Your task to perform on an android device: Show me productivity apps on the Play Store Image 0: 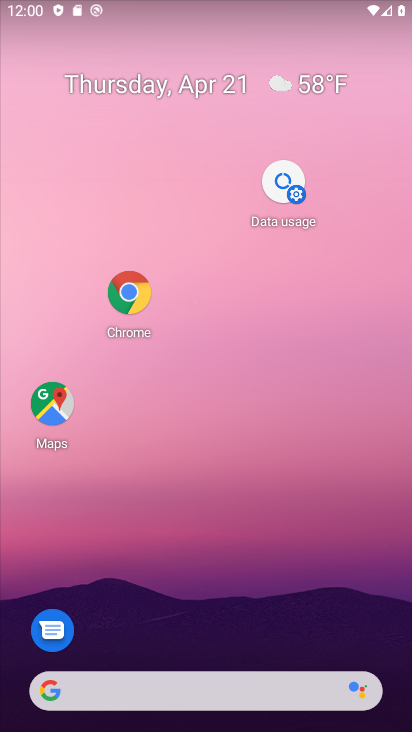
Step 0: drag from (147, 668) to (137, 393)
Your task to perform on an android device: Show me productivity apps on the Play Store Image 1: 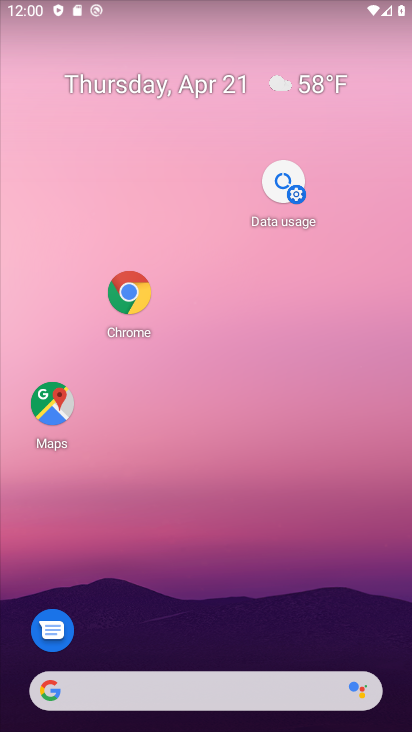
Step 1: drag from (206, 669) to (206, 260)
Your task to perform on an android device: Show me productivity apps on the Play Store Image 2: 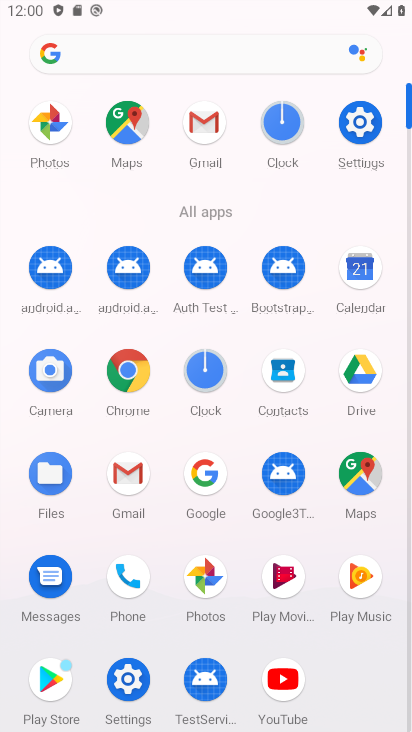
Step 2: click (43, 680)
Your task to perform on an android device: Show me productivity apps on the Play Store Image 3: 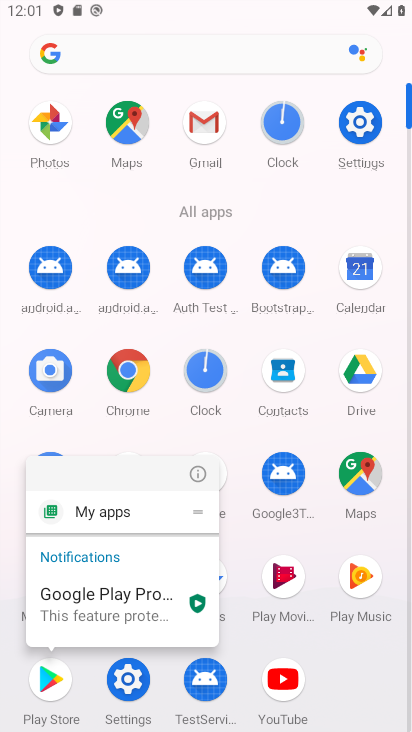
Step 3: click (54, 687)
Your task to perform on an android device: Show me productivity apps on the Play Store Image 4: 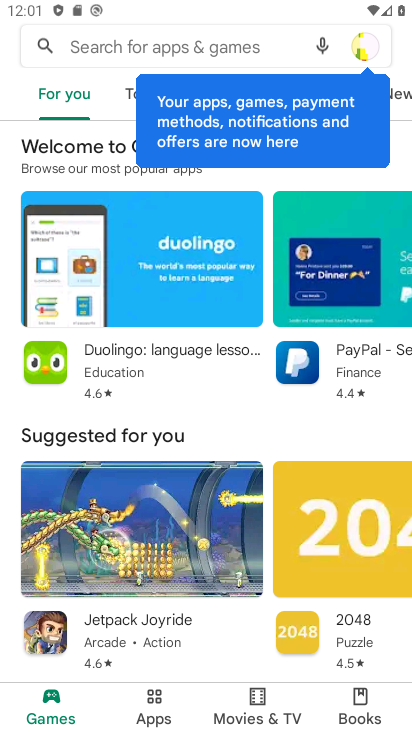
Step 4: click (147, 702)
Your task to perform on an android device: Show me productivity apps on the Play Store Image 5: 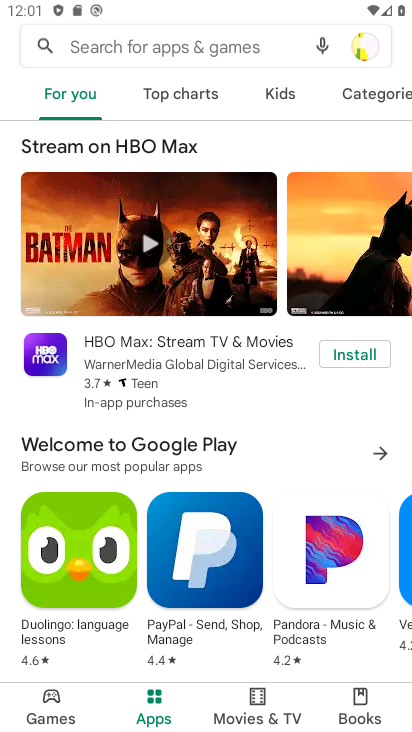
Step 5: task complete